Your task to perform on an android device: Search for vegetarian restaurants on Maps Image 0: 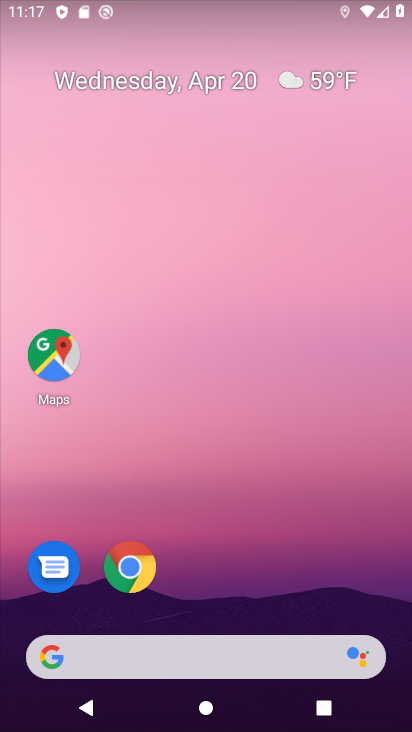
Step 0: drag from (227, 500) to (354, 54)
Your task to perform on an android device: Search for vegetarian restaurants on Maps Image 1: 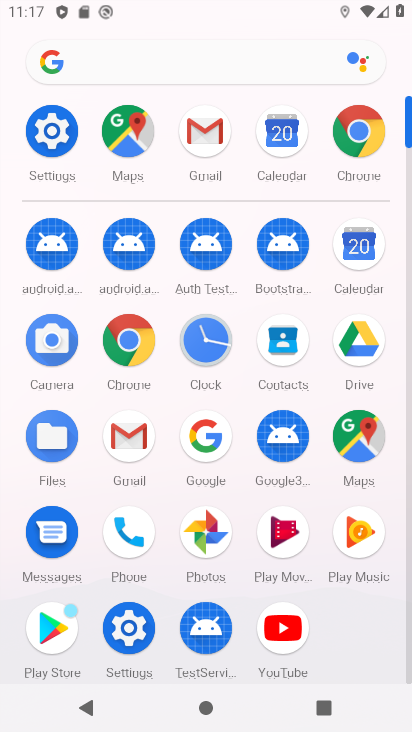
Step 1: click (352, 441)
Your task to perform on an android device: Search for vegetarian restaurants on Maps Image 2: 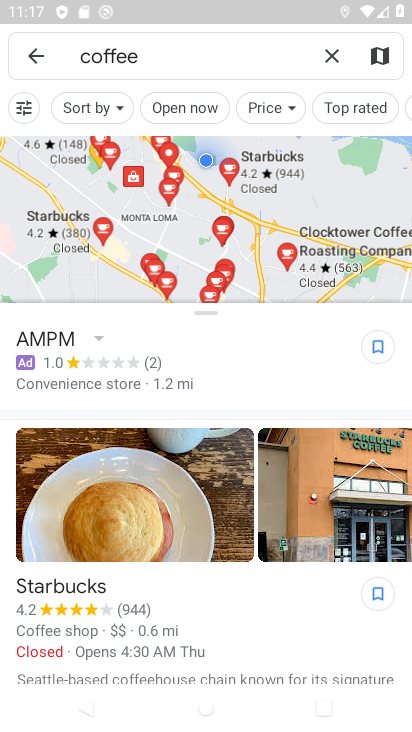
Step 2: click (326, 51)
Your task to perform on an android device: Search for vegetarian restaurants on Maps Image 3: 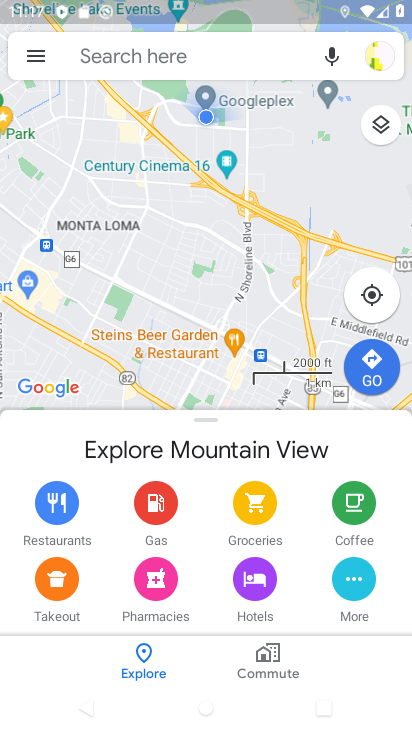
Step 3: click (236, 49)
Your task to perform on an android device: Search for vegetarian restaurants on Maps Image 4: 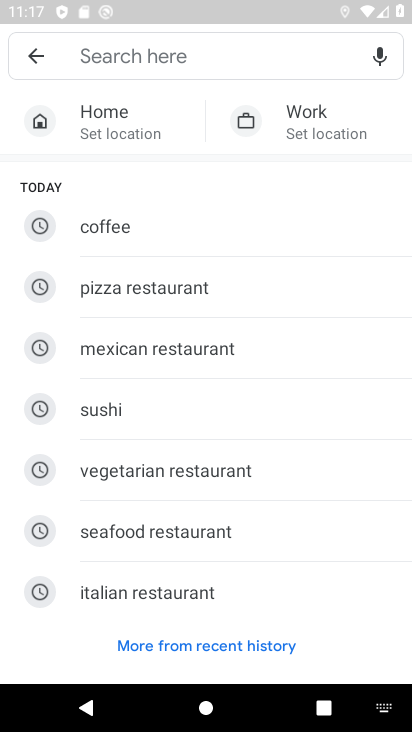
Step 4: type "vegetarian restaurants"
Your task to perform on an android device: Search for vegetarian restaurants on Maps Image 5: 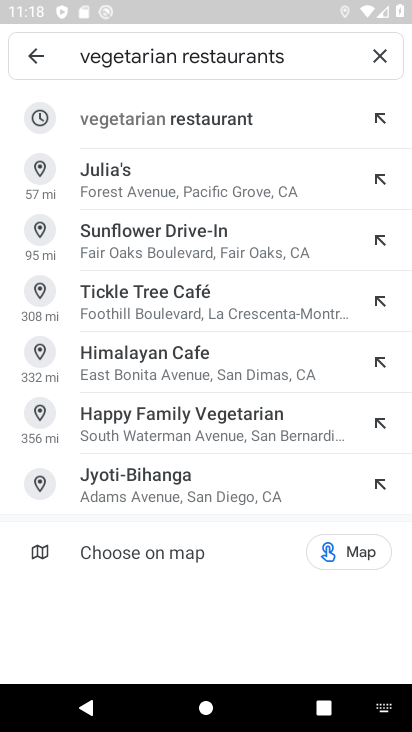
Step 5: click (243, 124)
Your task to perform on an android device: Search for vegetarian restaurants on Maps Image 6: 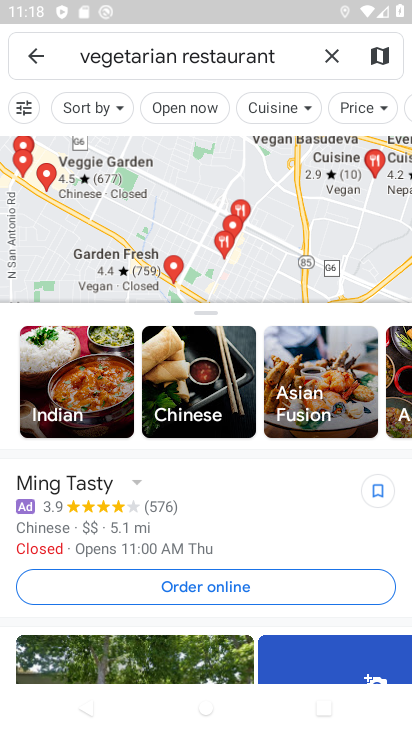
Step 6: task complete